Your task to perform on an android device: Open calendar and show me the second week of next month Image 0: 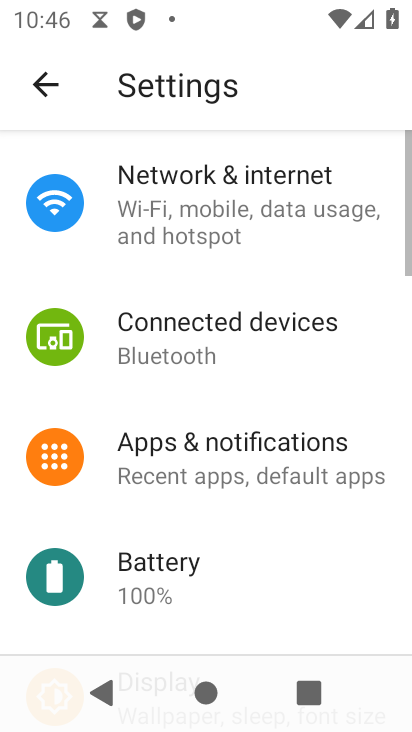
Step 0: press home button
Your task to perform on an android device: Open calendar and show me the second week of next month Image 1: 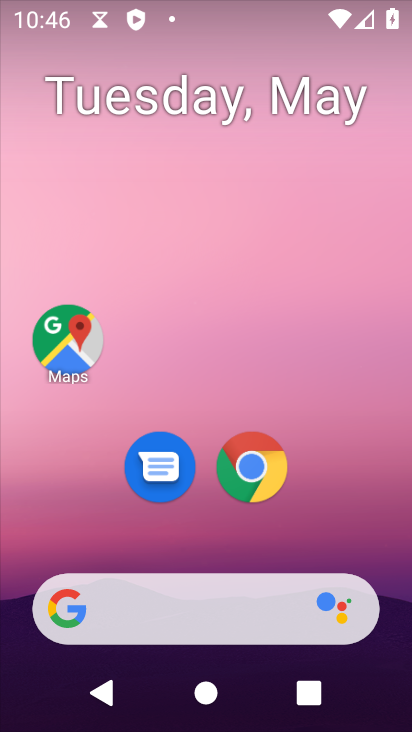
Step 1: drag from (397, 565) to (254, 98)
Your task to perform on an android device: Open calendar and show me the second week of next month Image 2: 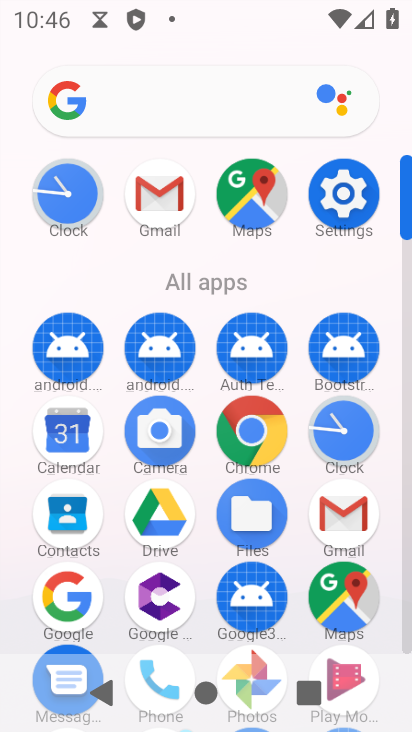
Step 2: click (71, 440)
Your task to perform on an android device: Open calendar and show me the second week of next month Image 3: 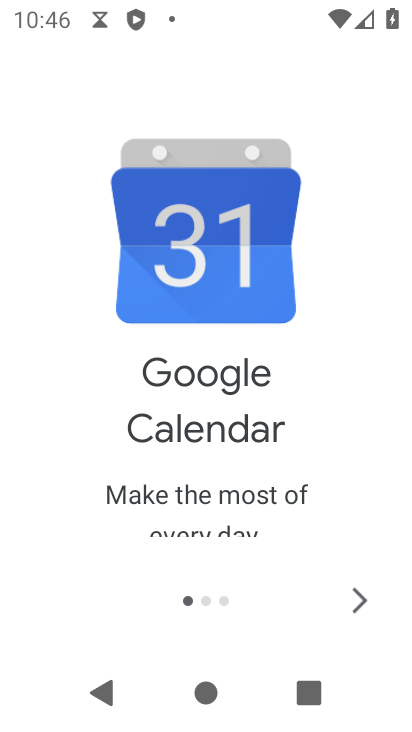
Step 3: click (366, 604)
Your task to perform on an android device: Open calendar and show me the second week of next month Image 4: 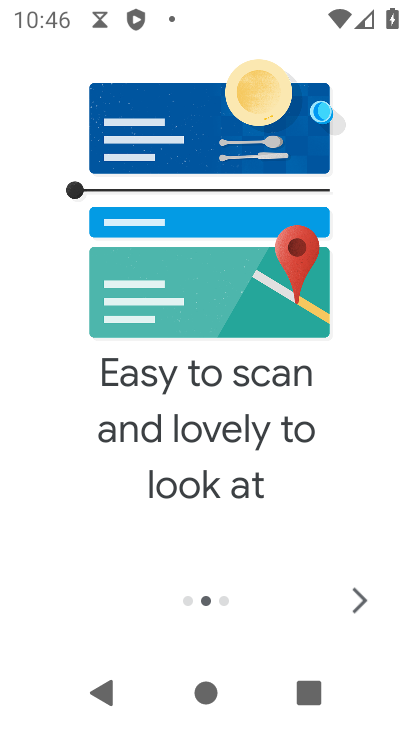
Step 4: click (366, 604)
Your task to perform on an android device: Open calendar and show me the second week of next month Image 5: 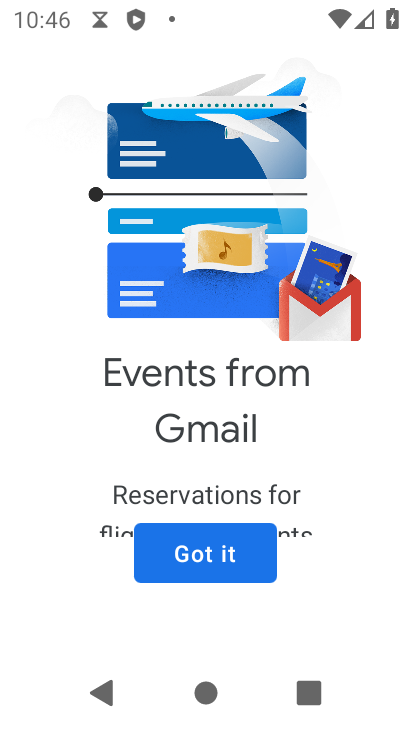
Step 5: click (231, 546)
Your task to perform on an android device: Open calendar and show me the second week of next month Image 6: 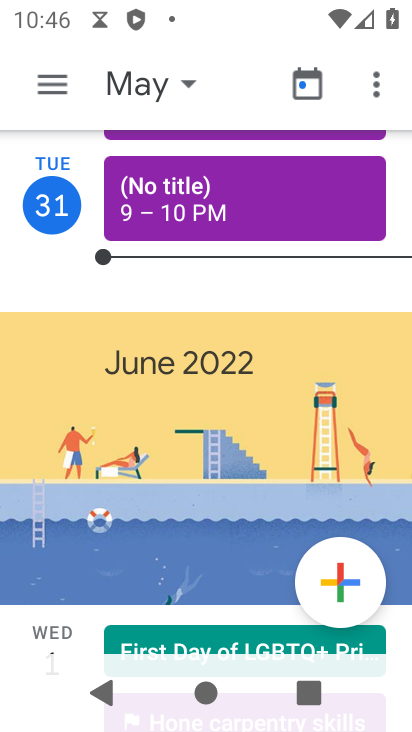
Step 6: click (159, 97)
Your task to perform on an android device: Open calendar and show me the second week of next month Image 7: 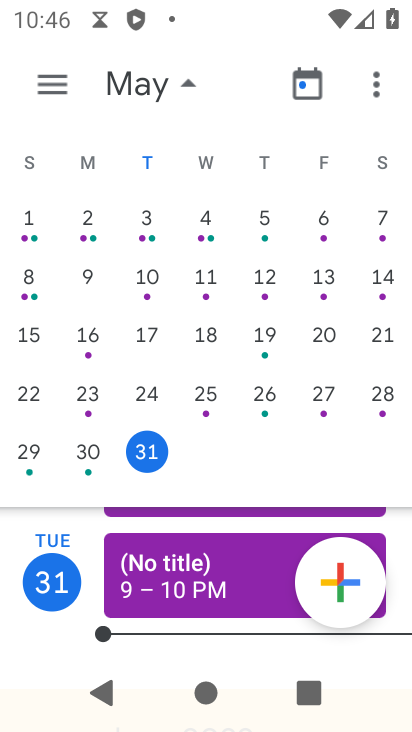
Step 7: drag from (385, 317) to (5, 318)
Your task to perform on an android device: Open calendar and show me the second week of next month Image 8: 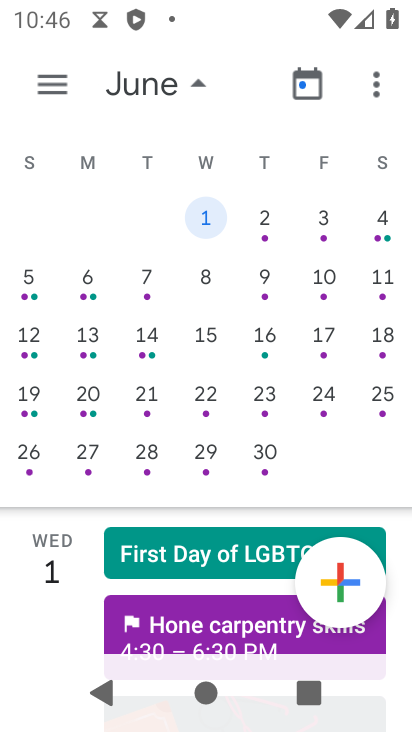
Step 8: click (210, 289)
Your task to perform on an android device: Open calendar and show me the second week of next month Image 9: 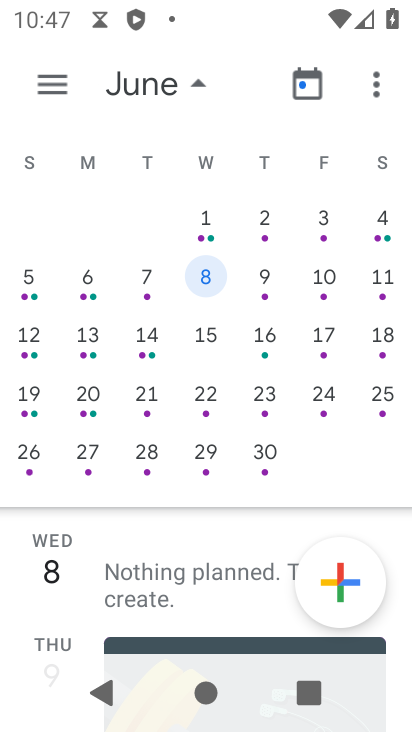
Step 9: click (47, 86)
Your task to perform on an android device: Open calendar and show me the second week of next month Image 10: 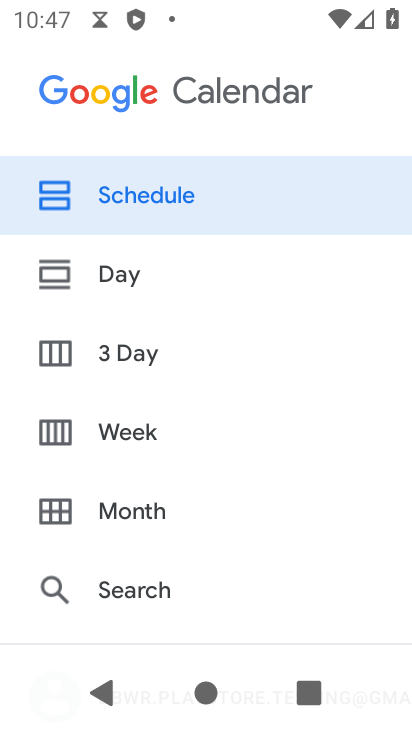
Step 10: click (145, 442)
Your task to perform on an android device: Open calendar and show me the second week of next month Image 11: 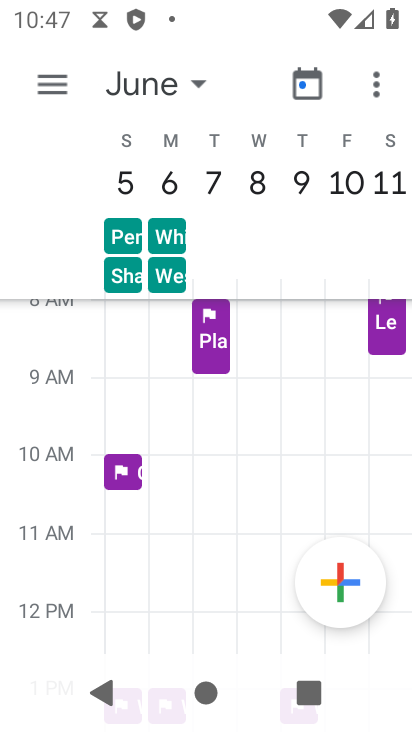
Step 11: task complete